Your task to perform on an android device: What's on the menu at Burger King? Image 0: 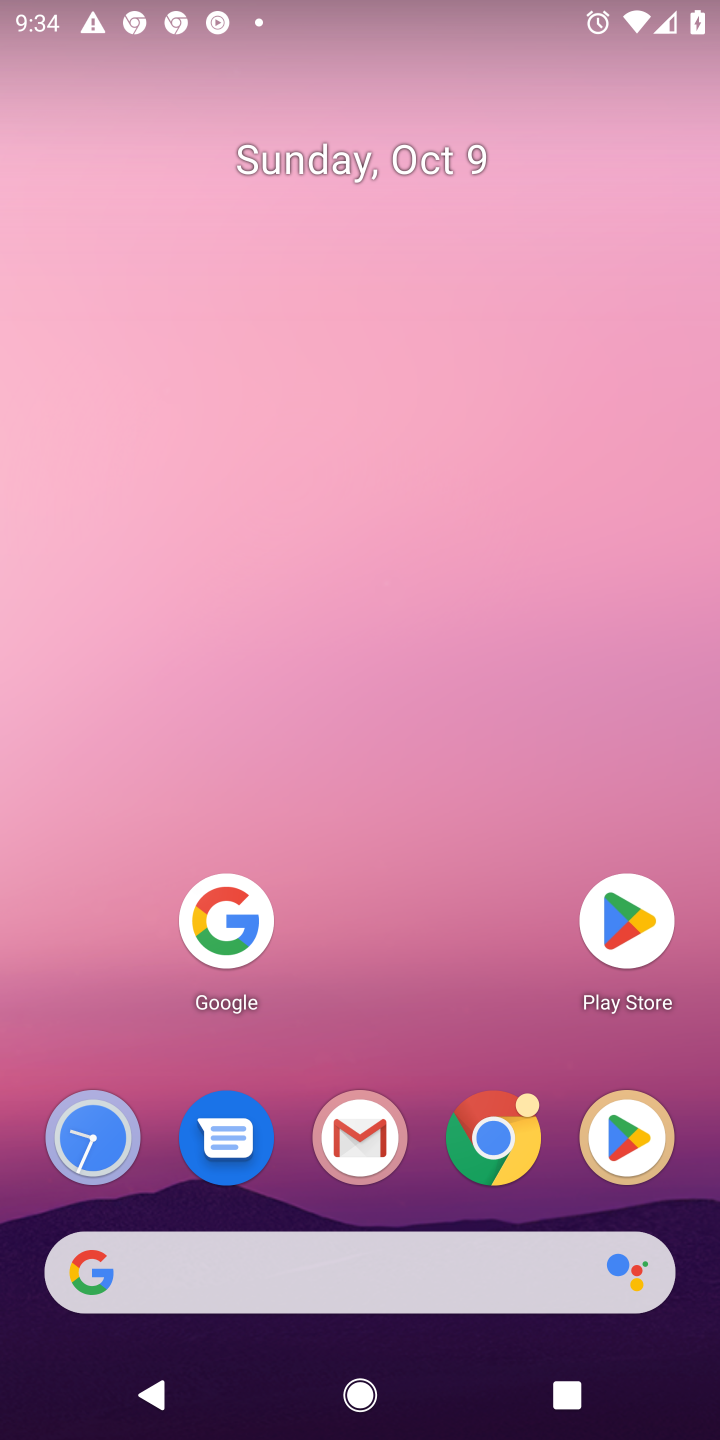
Step 0: click (241, 900)
Your task to perform on an android device: What's on the menu at Burger King? Image 1: 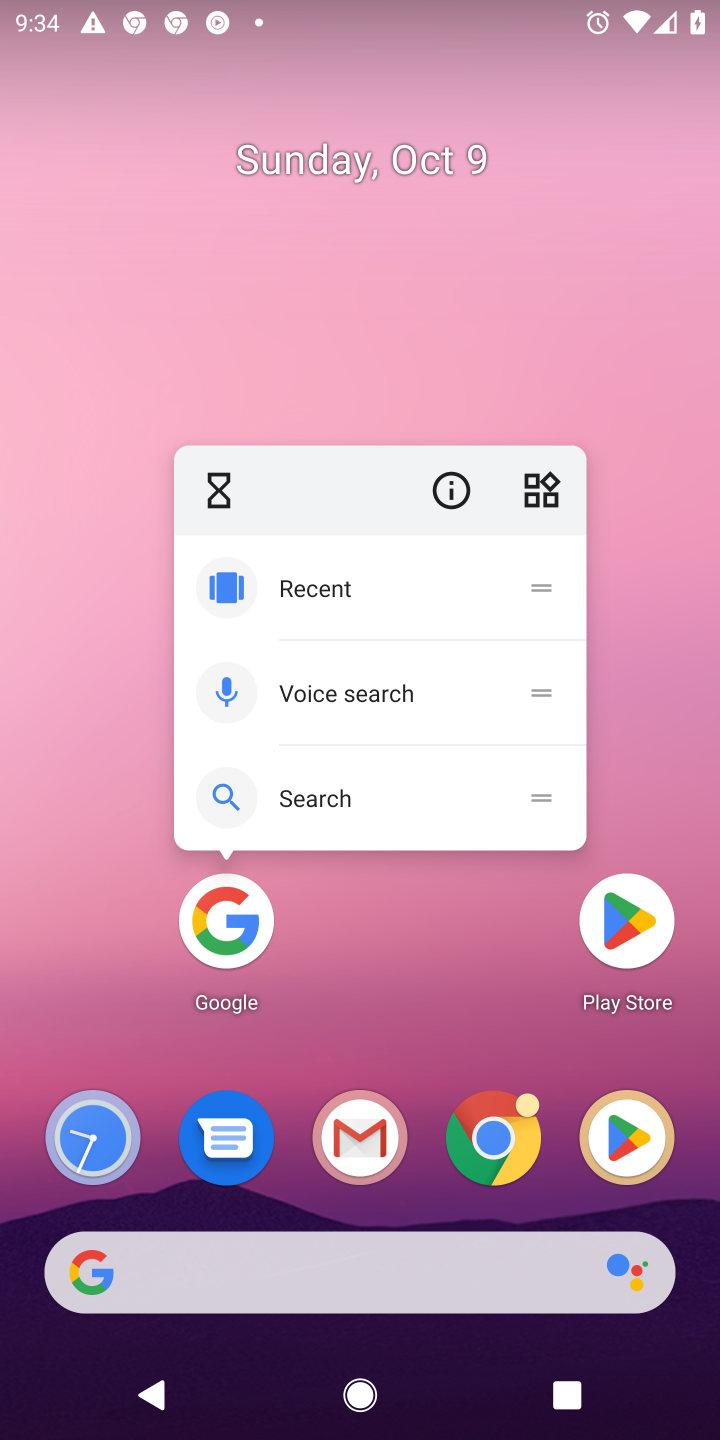
Step 1: click (194, 919)
Your task to perform on an android device: What's on the menu at Burger King? Image 2: 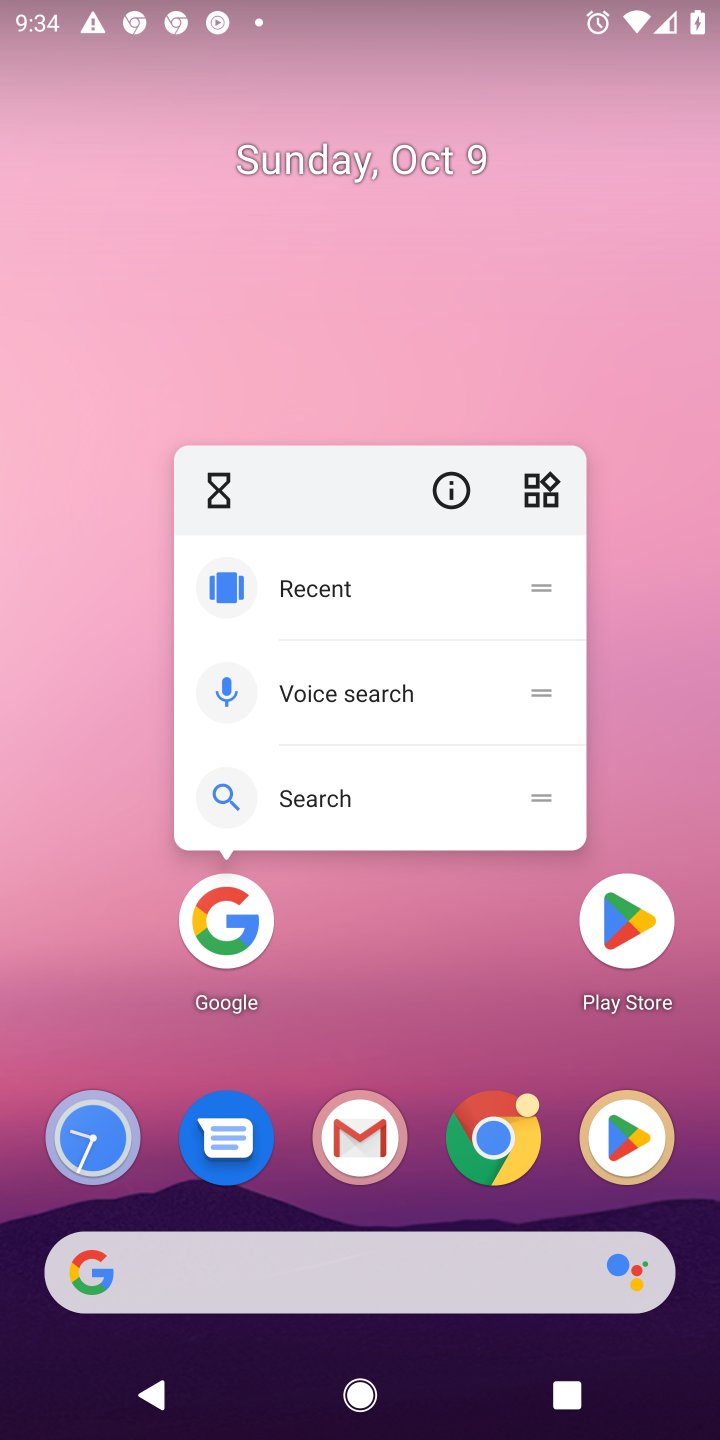
Step 2: click (194, 919)
Your task to perform on an android device: What's on the menu at Burger King? Image 3: 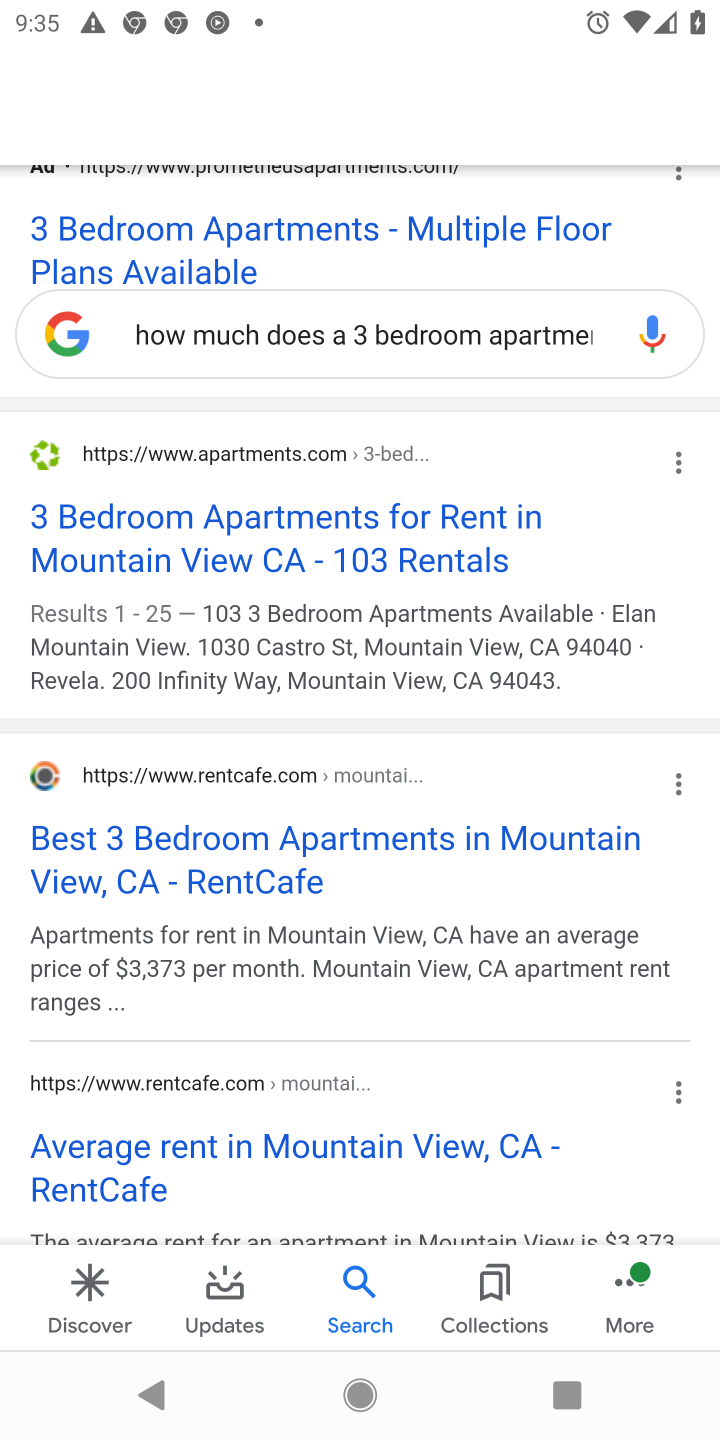
Step 3: click (385, 564)
Your task to perform on an android device: What's on the menu at Burger King? Image 4: 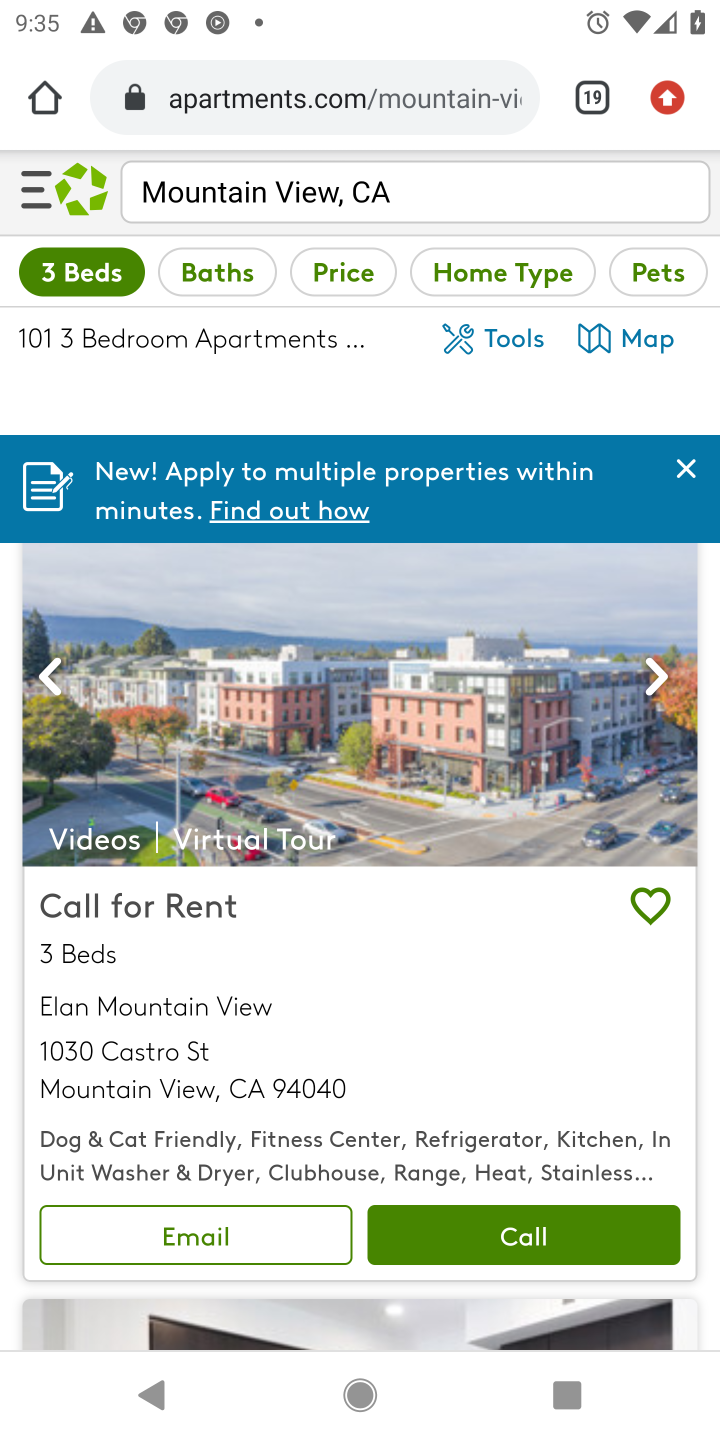
Step 4: task complete